Your task to perform on an android device: check storage Image 0: 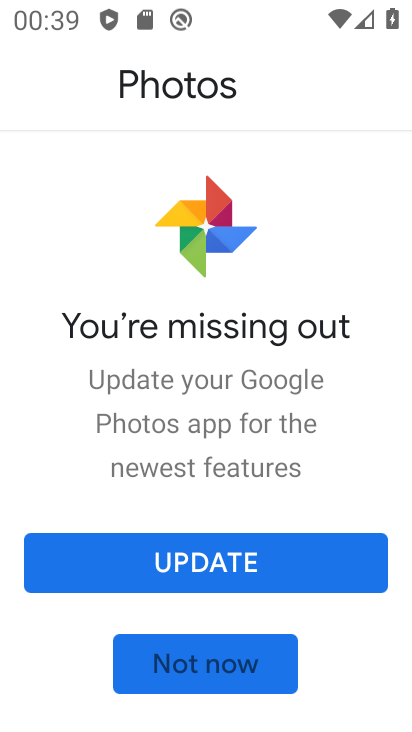
Step 0: click (202, 671)
Your task to perform on an android device: check storage Image 1: 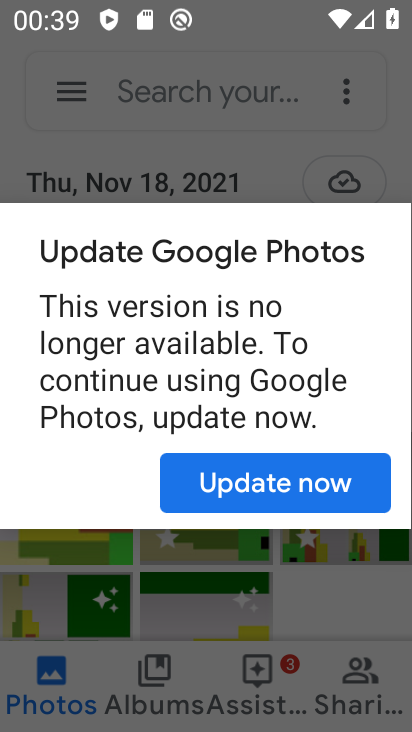
Step 1: press home button
Your task to perform on an android device: check storage Image 2: 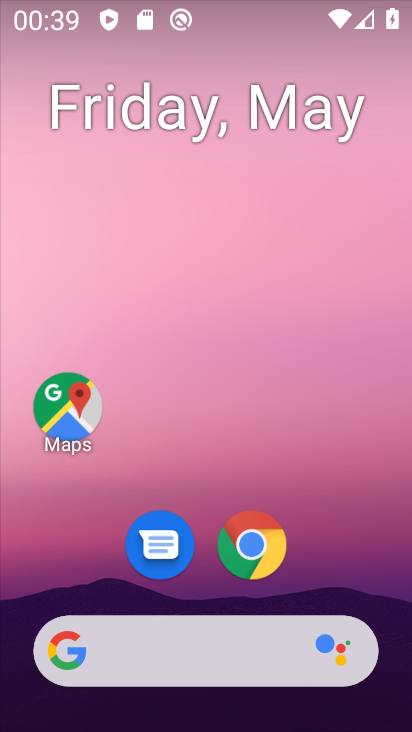
Step 2: drag from (345, 540) to (256, 4)
Your task to perform on an android device: check storage Image 3: 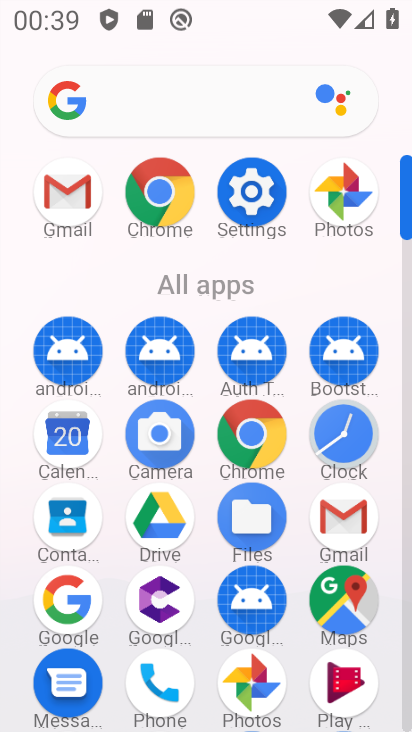
Step 3: click (240, 199)
Your task to perform on an android device: check storage Image 4: 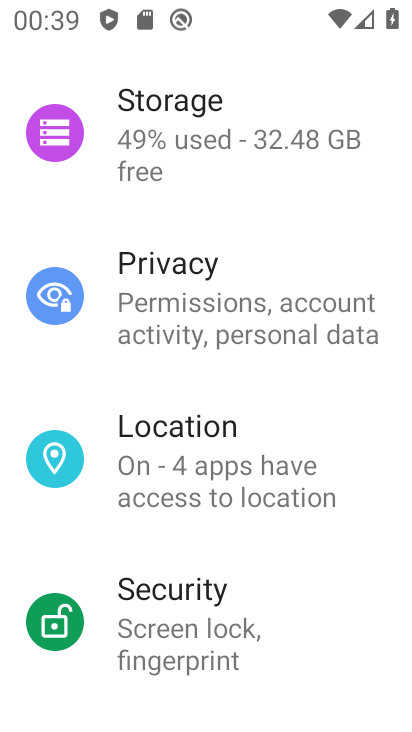
Step 4: click (228, 149)
Your task to perform on an android device: check storage Image 5: 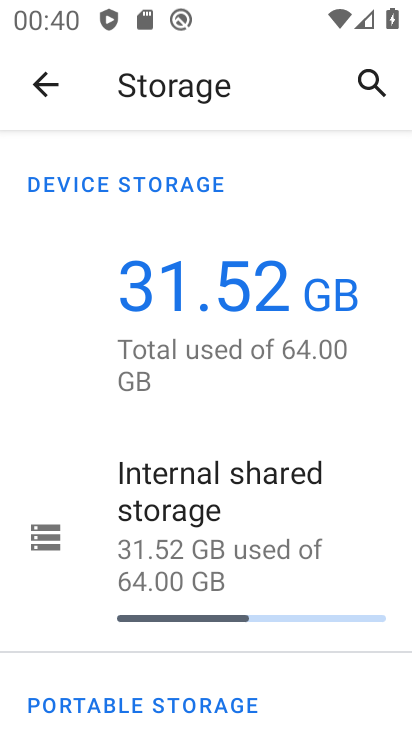
Step 5: task complete